Your task to perform on an android device: toggle location history Image 0: 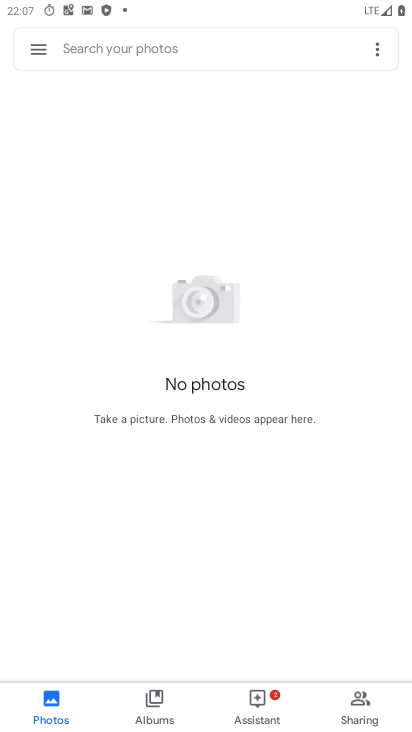
Step 0: press home button
Your task to perform on an android device: toggle location history Image 1: 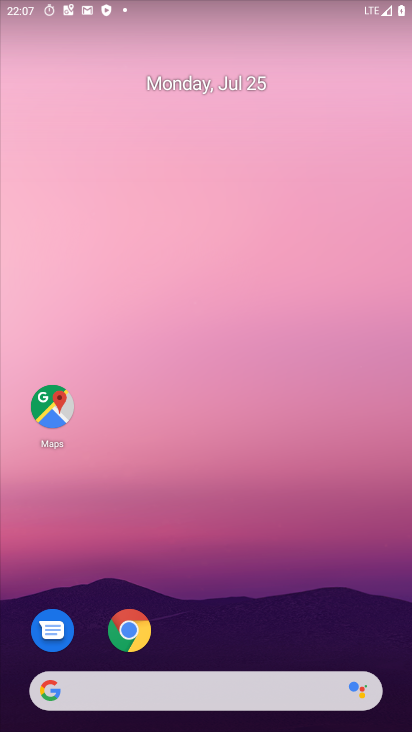
Step 1: drag from (254, 575) to (300, 88)
Your task to perform on an android device: toggle location history Image 2: 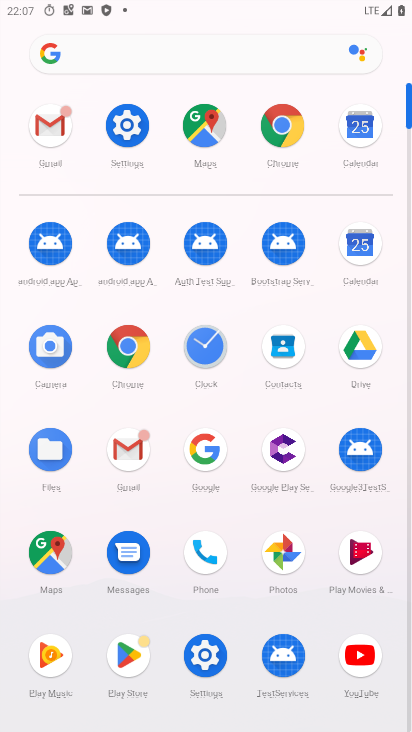
Step 2: click (130, 138)
Your task to perform on an android device: toggle location history Image 3: 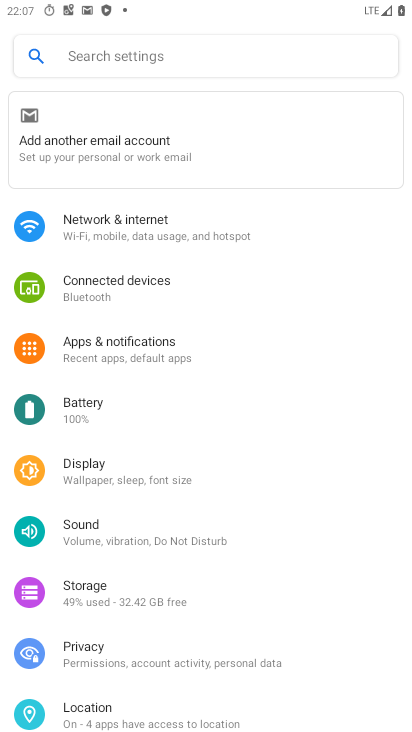
Step 3: click (81, 714)
Your task to perform on an android device: toggle location history Image 4: 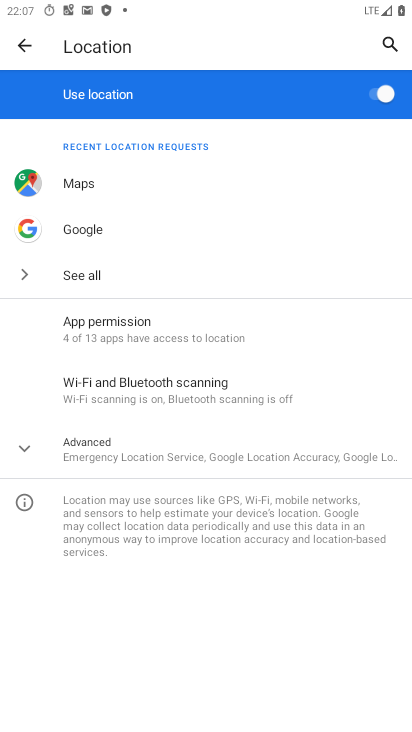
Step 4: click (90, 448)
Your task to perform on an android device: toggle location history Image 5: 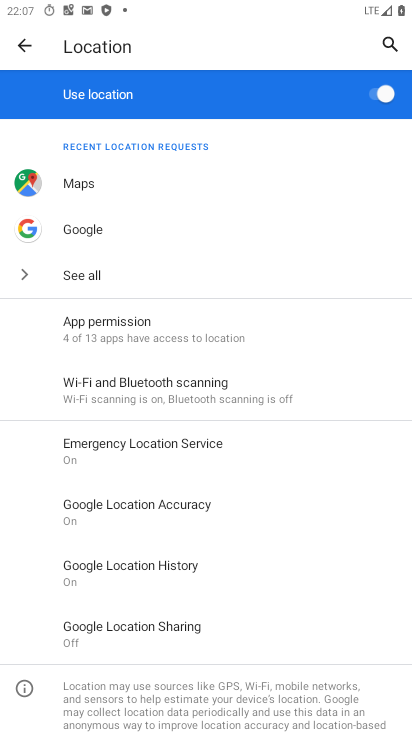
Step 5: click (147, 569)
Your task to perform on an android device: toggle location history Image 6: 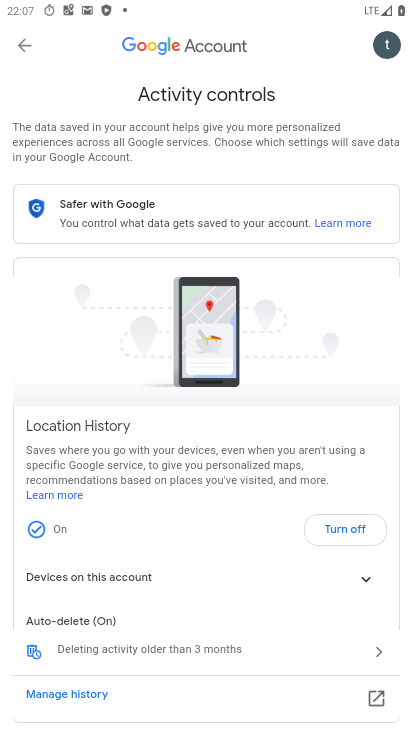
Step 6: click (345, 529)
Your task to perform on an android device: toggle location history Image 7: 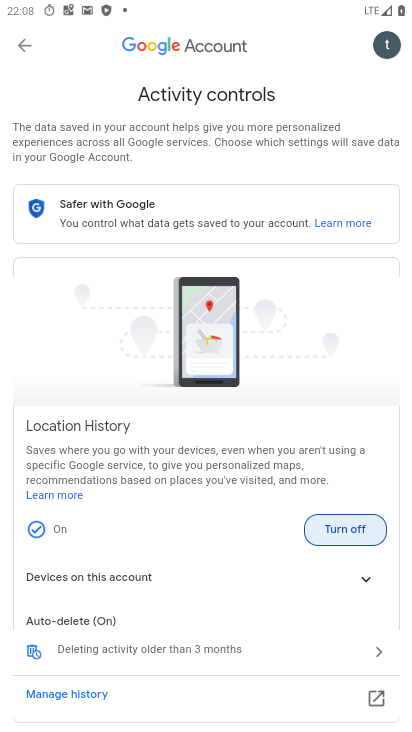
Step 7: click (348, 531)
Your task to perform on an android device: toggle location history Image 8: 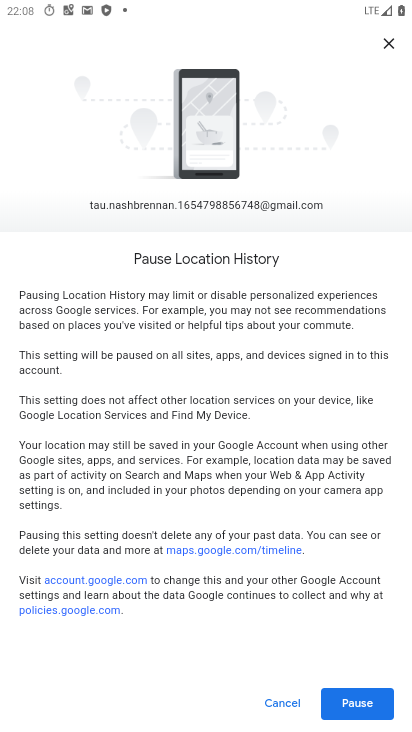
Step 8: click (351, 697)
Your task to perform on an android device: toggle location history Image 9: 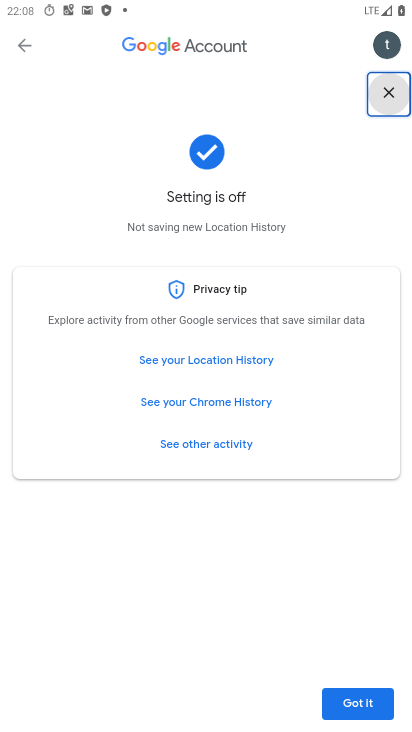
Step 9: click (355, 697)
Your task to perform on an android device: toggle location history Image 10: 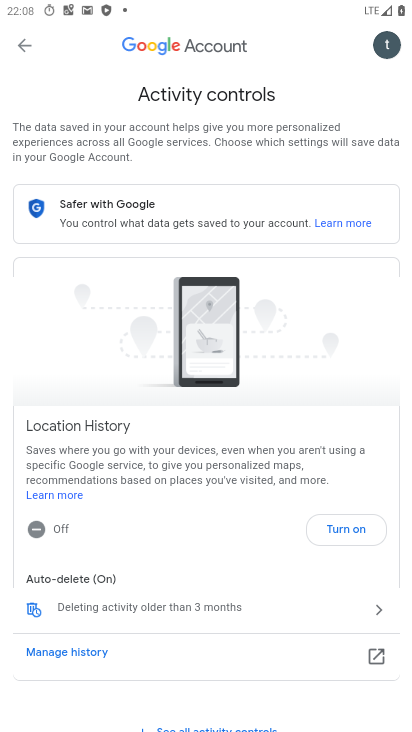
Step 10: task complete